Your task to perform on an android device: When is my next appointment? Image 0: 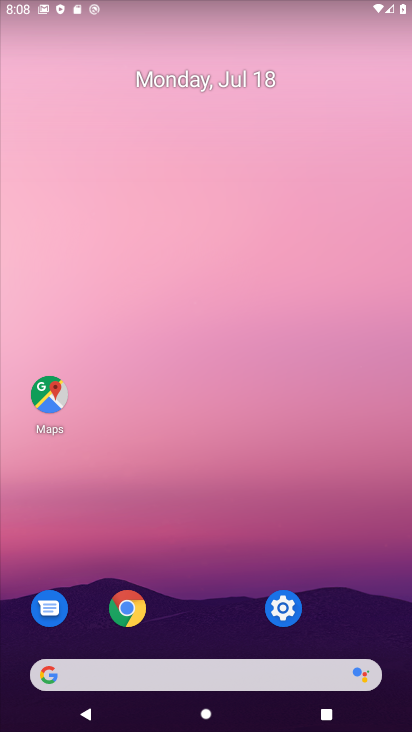
Step 0: drag from (278, 679) to (284, 128)
Your task to perform on an android device: When is my next appointment? Image 1: 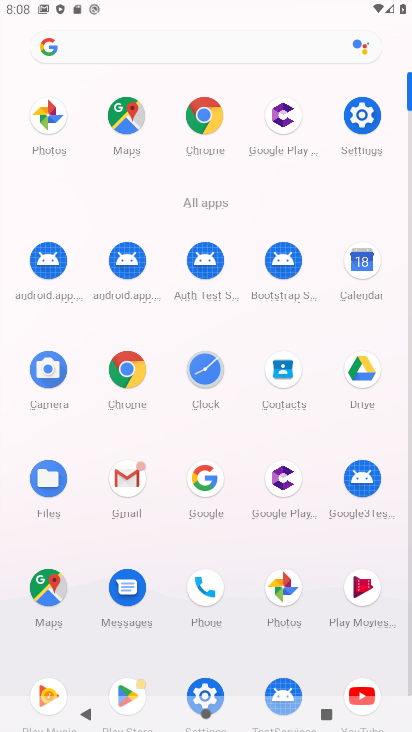
Step 1: click (350, 262)
Your task to perform on an android device: When is my next appointment? Image 2: 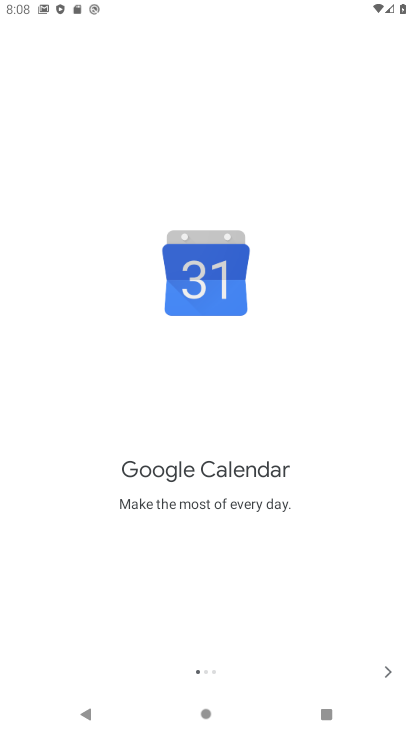
Step 2: click (387, 680)
Your task to perform on an android device: When is my next appointment? Image 3: 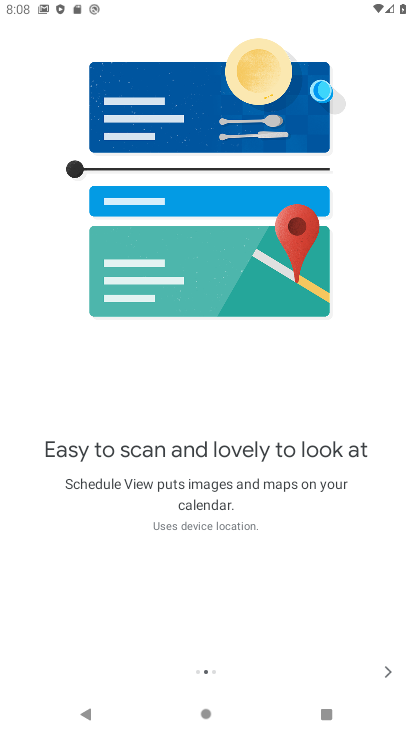
Step 3: click (386, 668)
Your task to perform on an android device: When is my next appointment? Image 4: 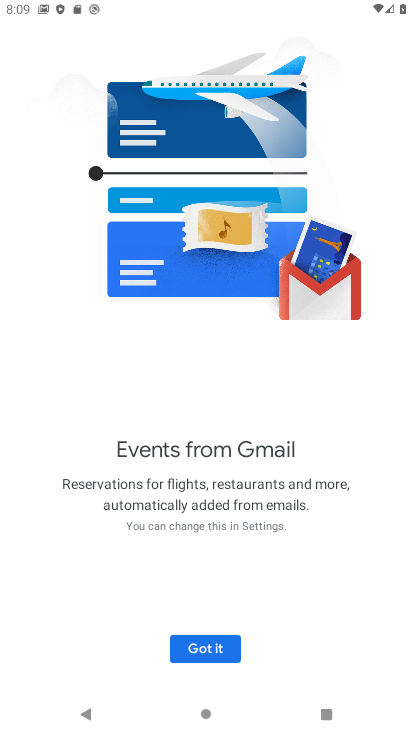
Step 4: click (179, 637)
Your task to perform on an android device: When is my next appointment? Image 5: 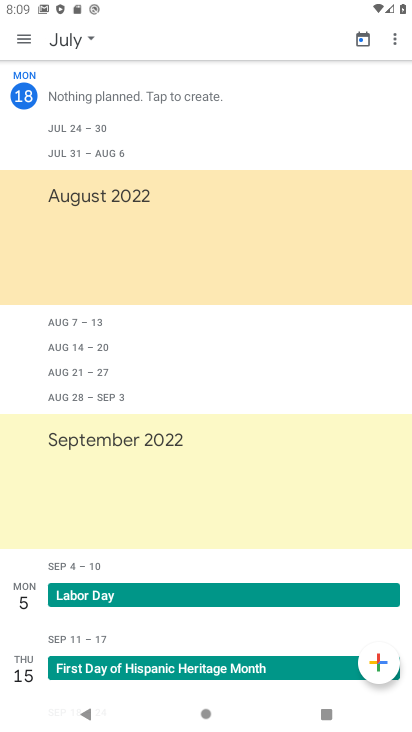
Step 5: click (32, 49)
Your task to perform on an android device: When is my next appointment? Image 6: 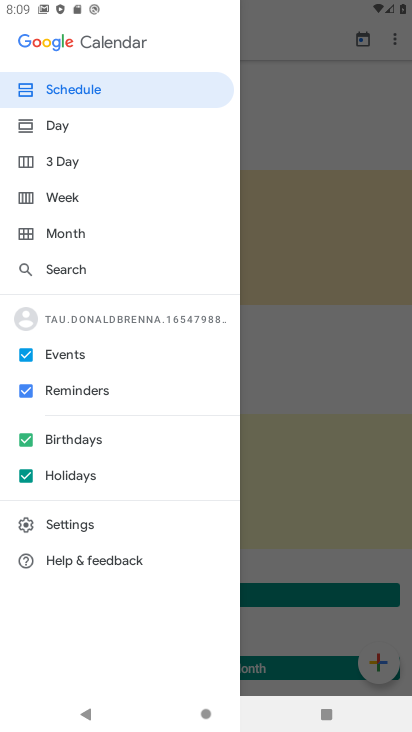
Step 6: click (64, 518)
Your task to perform on an android device: When is my next appointment? Image 7: 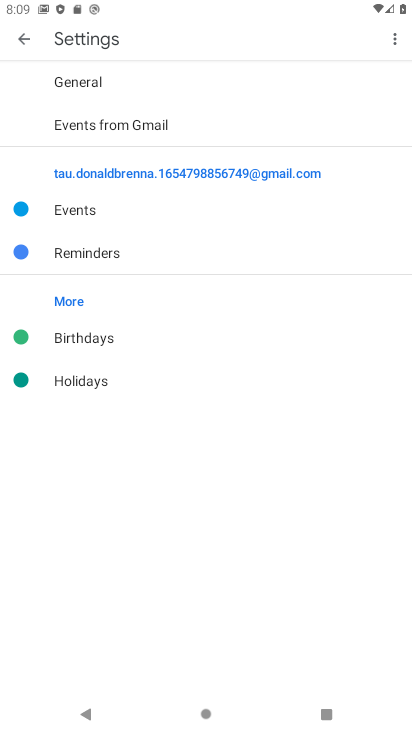
Step 7: click (30, 36)
Your task to perform on an android device: When is my next appointment? Image 8: 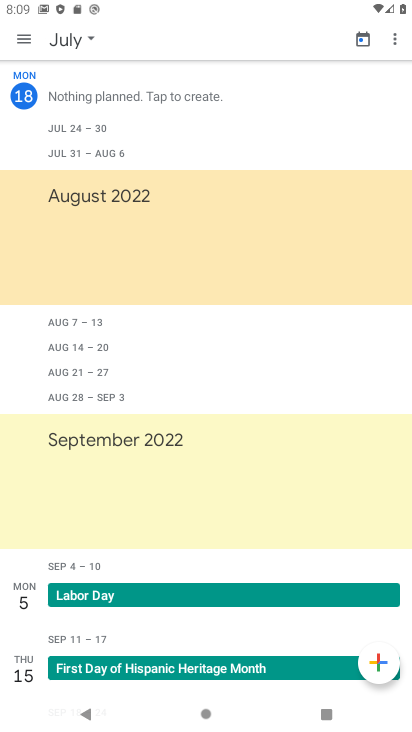
Step 8: task complete